Your task to perform on an android device: turn on the 24-hour format for clock Image 0: 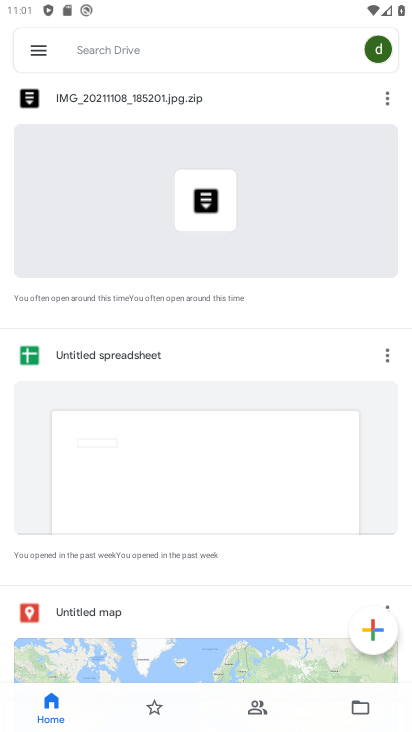
Step 0: press home button
Your task to perform on an android device: turn on the 24-hour format for clock Image 1: 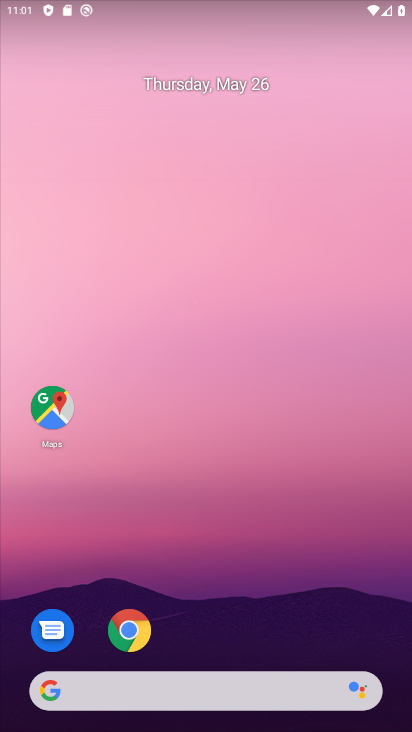
Step 1: drag from (262, 573) to (196, 157)
Your task to perform on an android device: turn on the 24-hour format for clock Image 2: 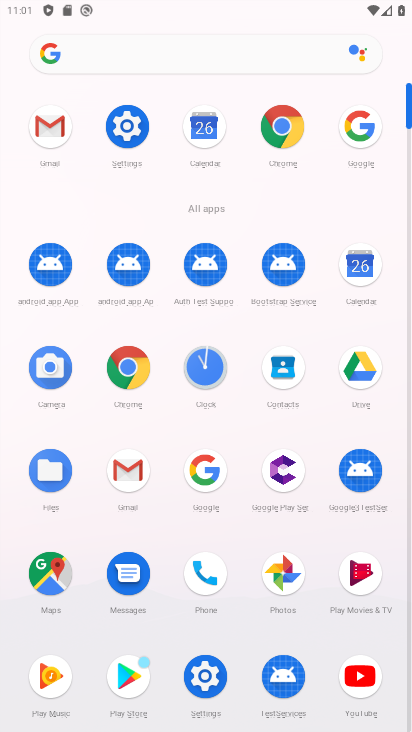
Step 2: click (206, 369)
Your task to perform on an android device: turn on the 24-hour format for clock Image 3: 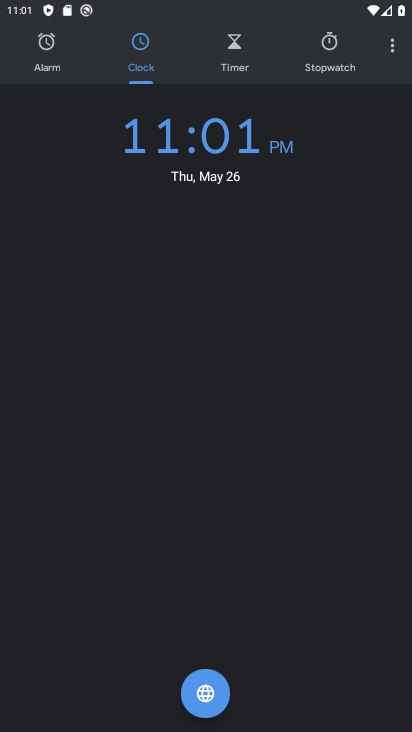
Step 3: click (391, 47)
Your task to perform on an android device: turn on the 24-hour format for clock Image 4: 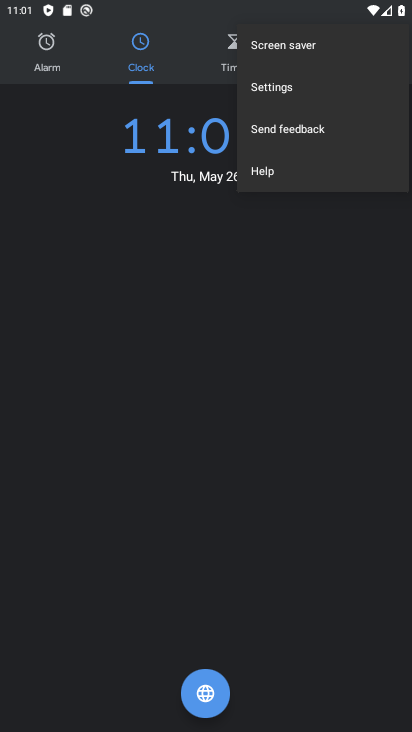
Step 4: click (286, 85)
Your task to perform on an android device: turn on the 24-hour format for clock Image 5: 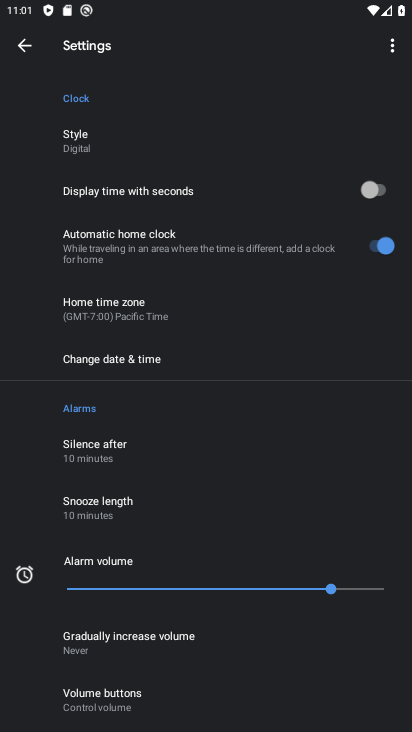
Step 5: click (155, 365)
Your task to perform on an android device: turn on the 24-hour format for clock Image 6: 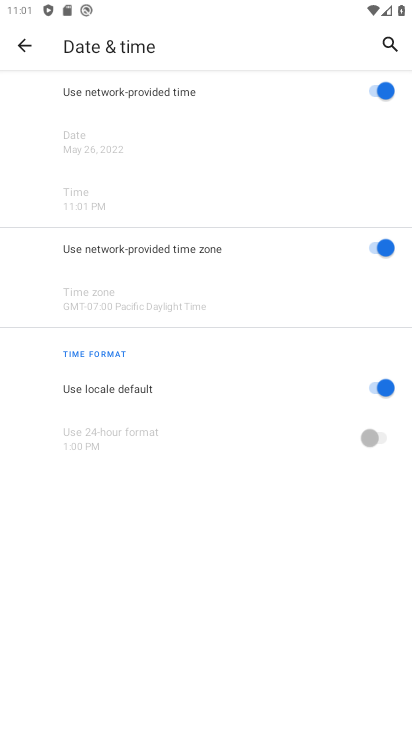
Step 6: click (377, 388)
Your task to perform on an android device: turn on the 24-hour format for clock Image 7: 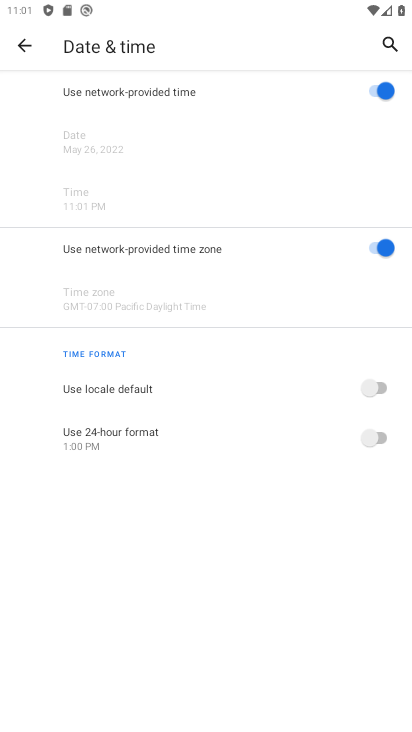
Step 7: click (372, 439)
Your task to perform on an android device: turn on the 24-hour format for clock Image 8: 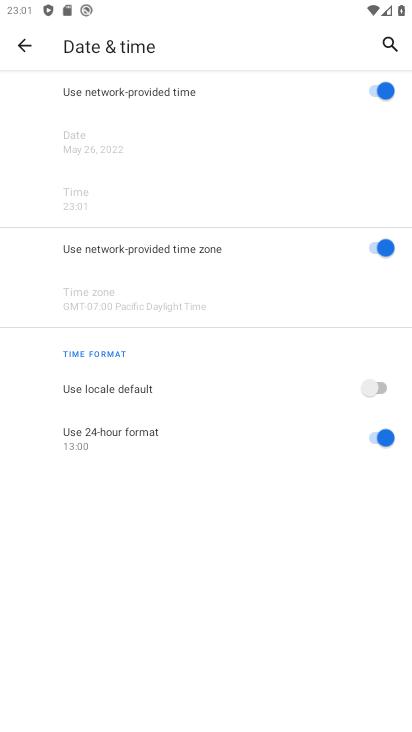
Step 8: task complete